Your task to perform on an android device: Go to Wikipedia Image 0: 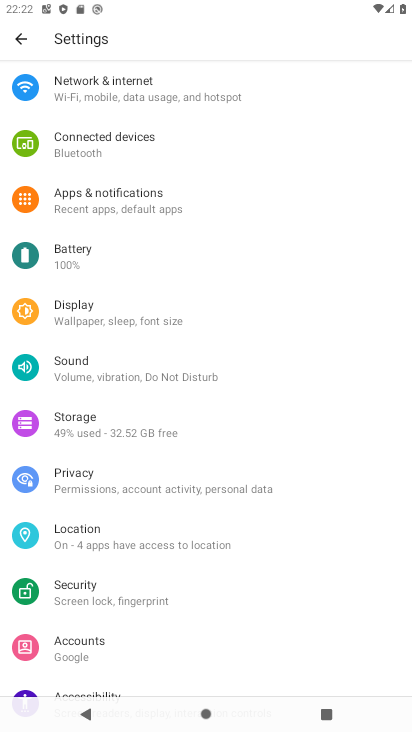
Step 0: press home button
Your task to perform on an android device: Go to Wikipedia Image 1: 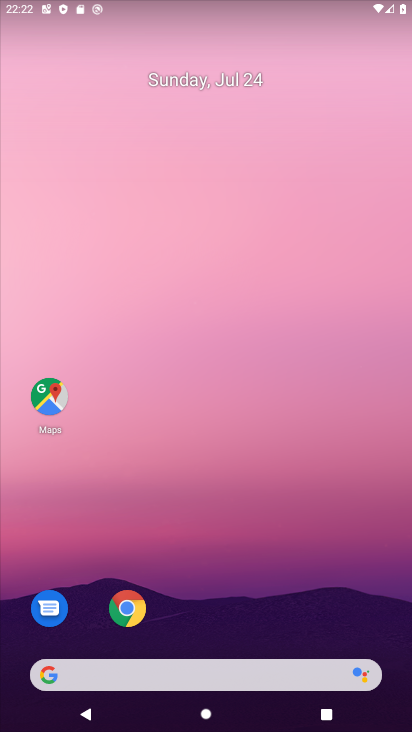
Step 1: click (123, 609)
Your task to perform on an android device: Go to Wikipedia Image 2: 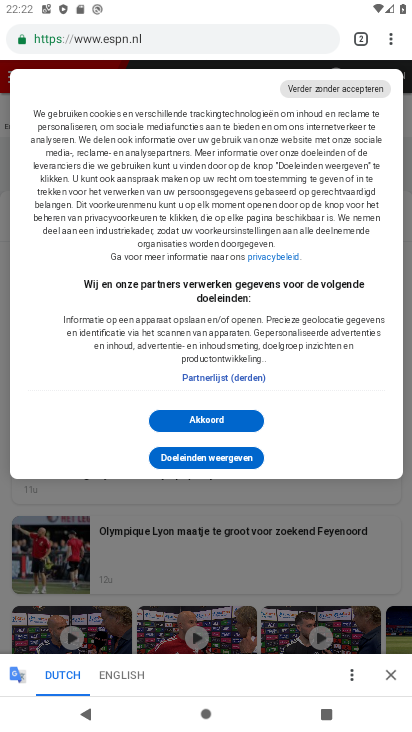
Step 2: click (153, 34)
Your task to perform on an android device: Go to Wikipedia Image 3: 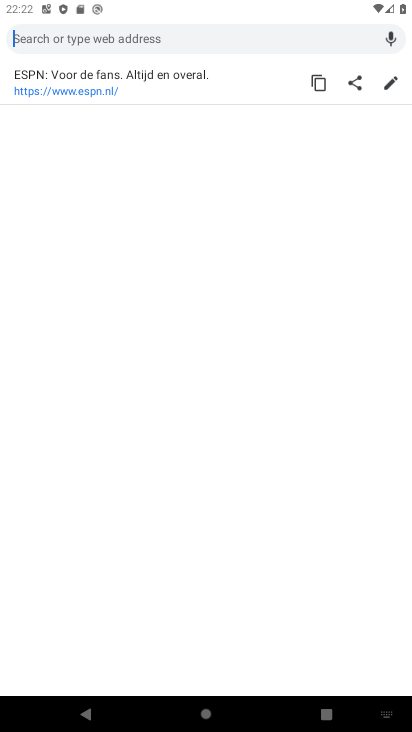
Step 3: type "wikipedia"
Your task to perform on an android device: Go to Wikipedia Image 4: 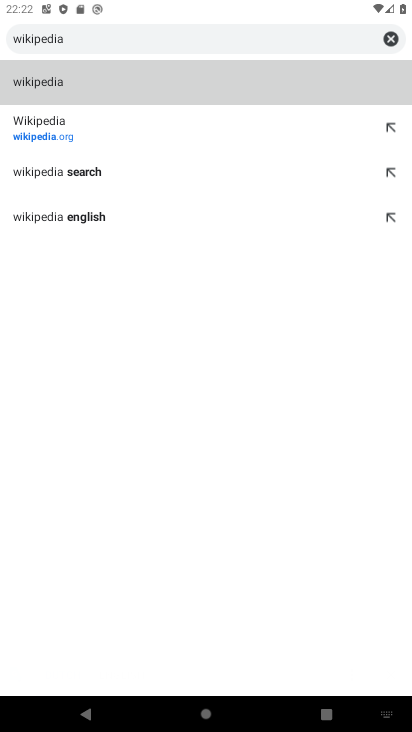
Step 4: click (197, 67)
Your task to perform on an android device: Go to Wikipedia Image 5: 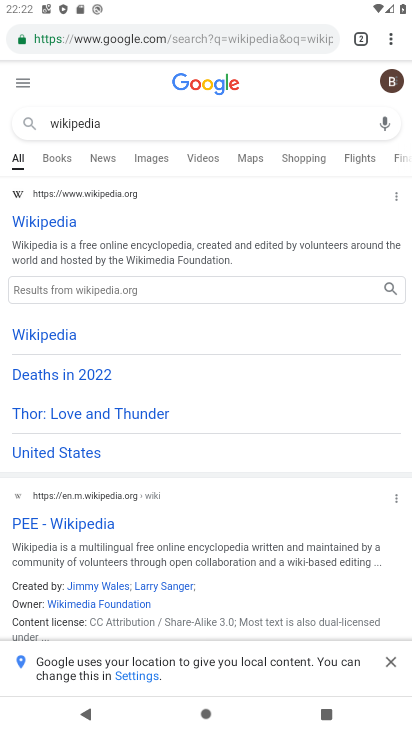
Step 5: click (43, 223)
Your task to perform on an android device: Go to Wikipedia Image 6: 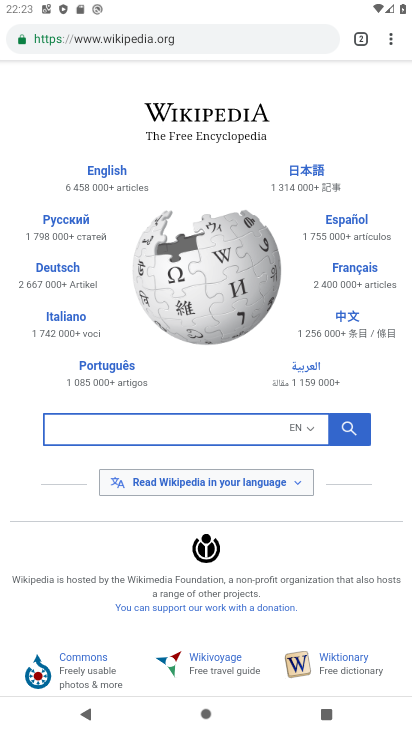
Step 6: task complete